Your task to perform on an android device: allow notifications from all sites in the chrome app Image 0: 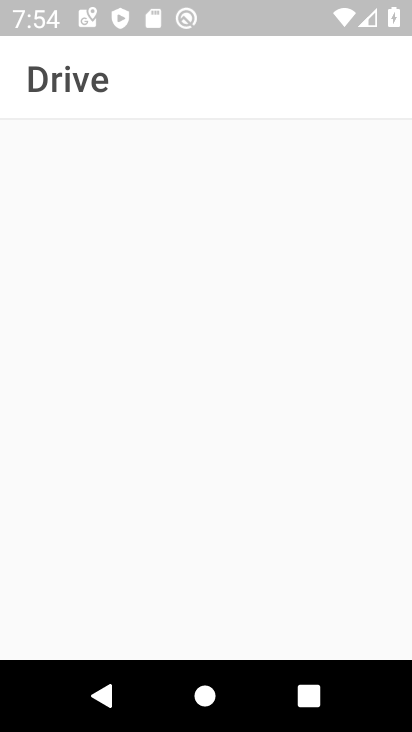
Step 0: press back button
Your task to perform on an android device: allow notifications from all sites in the chrome app Image 1: 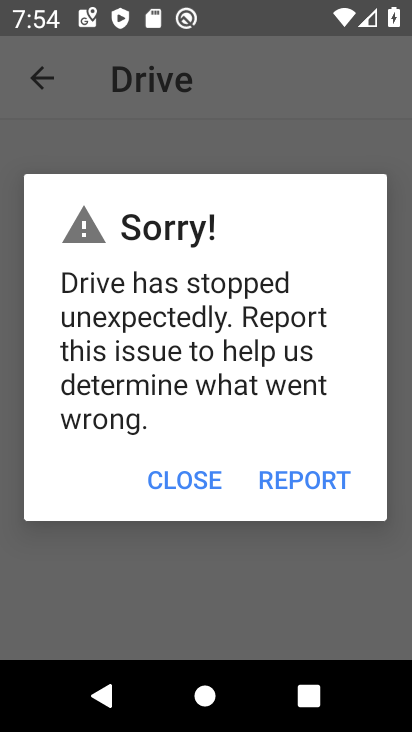
Step 1: press home button
Your task to perform on an android device: allow notifications from all sites in the chrome app Image 2: 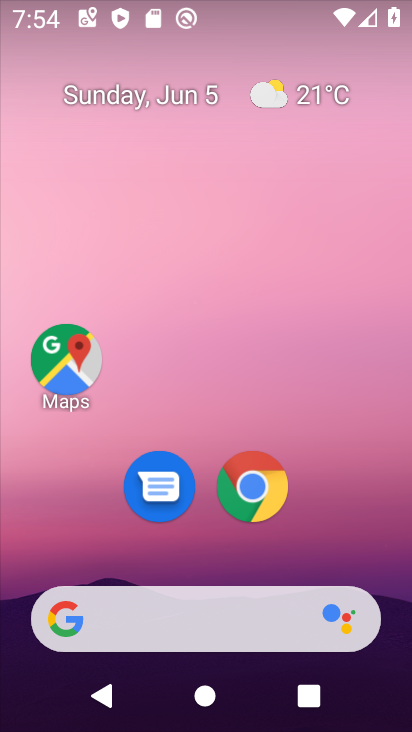
Step 2: click (263, 488)
Your task to perform on an android device: allow notifications from all sites in the chrome app Image 3: 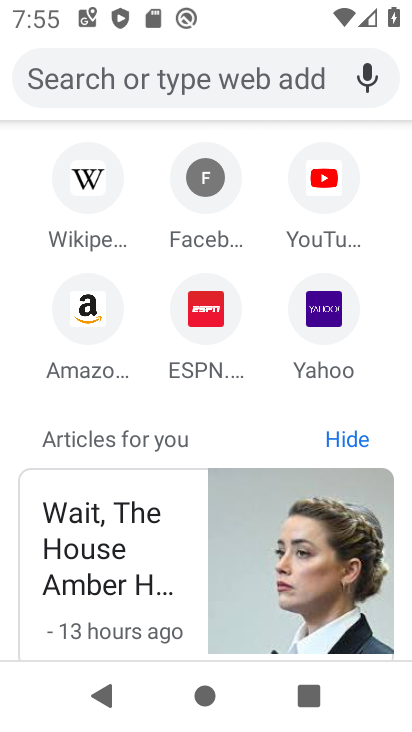
Step 3: drag from (302, 183) to (234, 648)
Your task to perform on an android device: allow notifications from all sites in the chrome app Image 4: 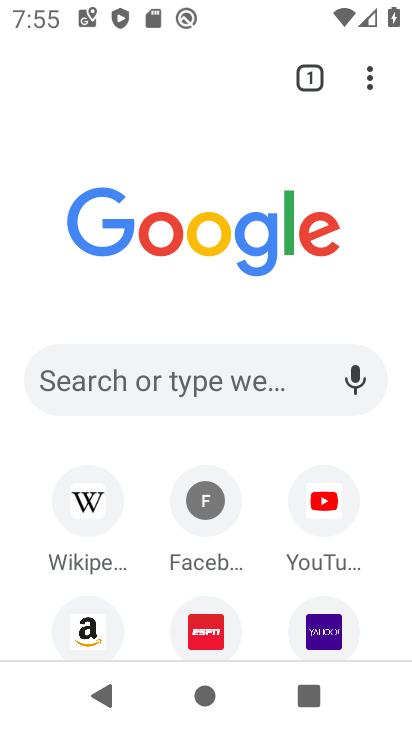
Step 4: drag from (365, 73) to (127, 547)
Your task to perform on an android device: allow notifications from all sites in the chrome app Image 5: 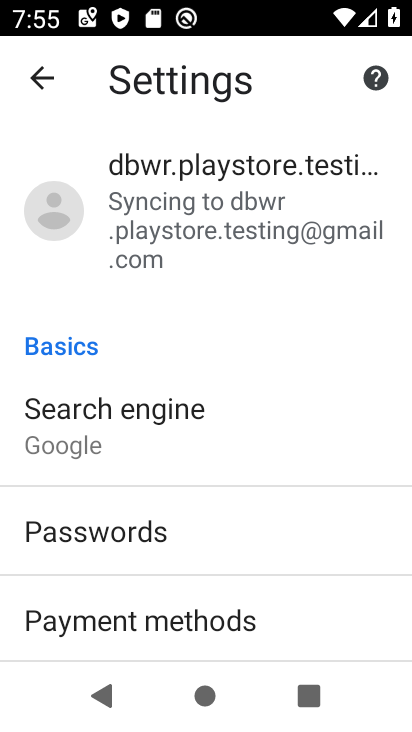
Step 5: drag from (180, 616) to (244, 180)
Your task to perform on an android device: allow notifications from all sites in the chrome app Image 6: 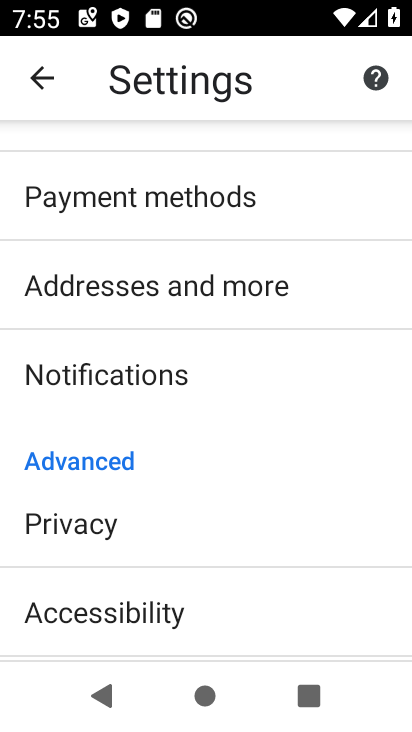
Step 6: click (157, 370)
Your task to perform on an android device: allow notifications from all sites in the chrome app Image 7: 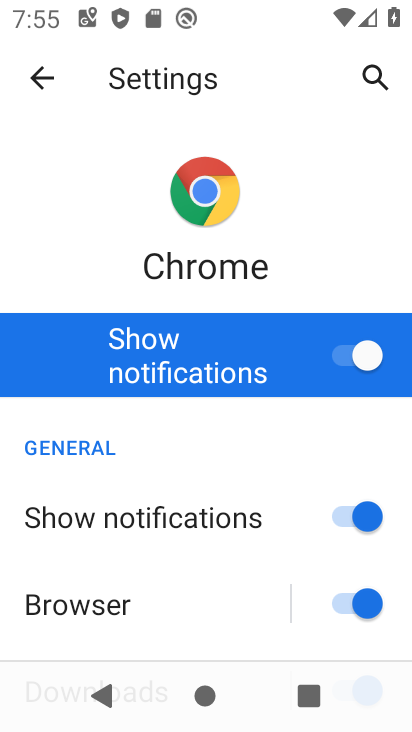
Step 7: task complete